Your task to perform on an android device: What's the weather going to be this weekend? Image 0: 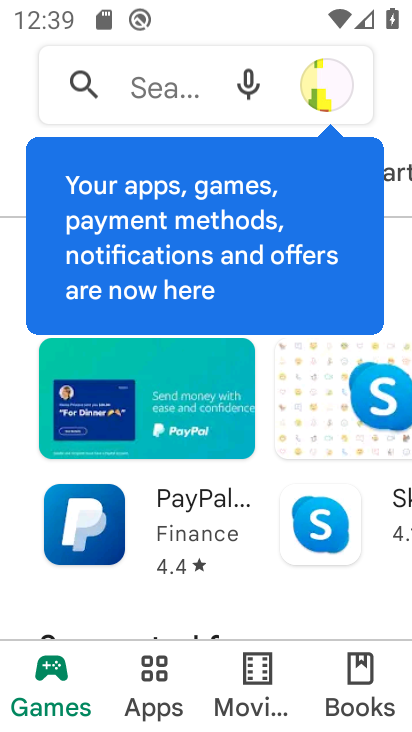
Step 0: press home button
Your task to perform on an android device: What's the weather going to be this weekend? Image 1: 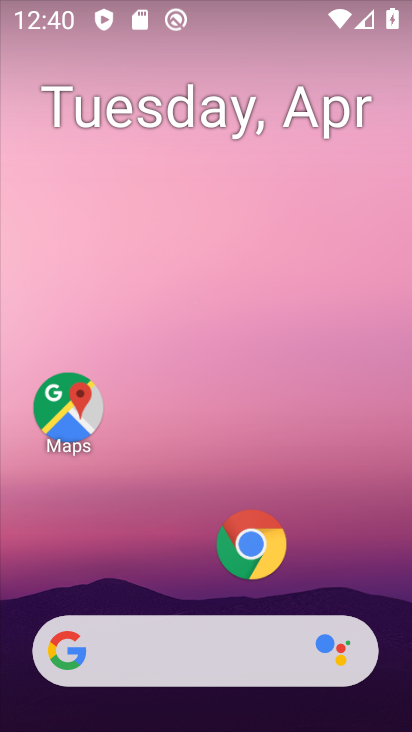
Step 1: drag from (341, 537) to (292, 99)
Your task to perform on an android device: What's the weather going to be this weekend? Image 2: 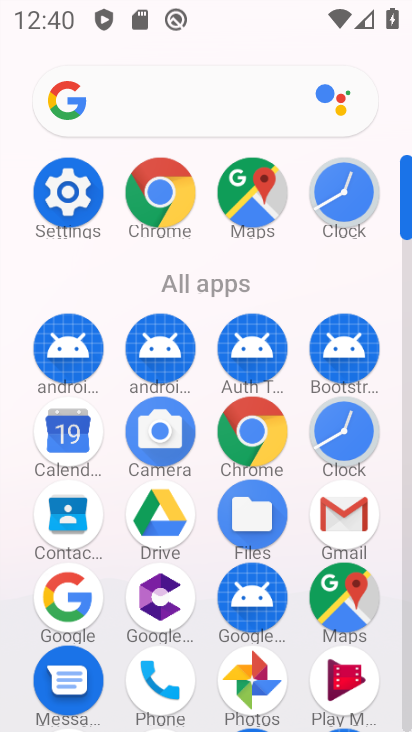
Step 2: click (260, 434)
Your task to perform on an android device: What's the weather going to be this weekend? Image 3: 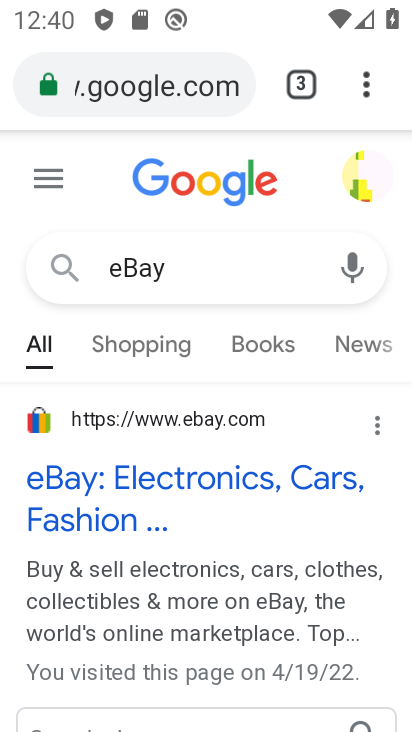
Step 3: click (367, 81)
Your task to perform on an android device: What's the weather going to be this weekend? Image 4: 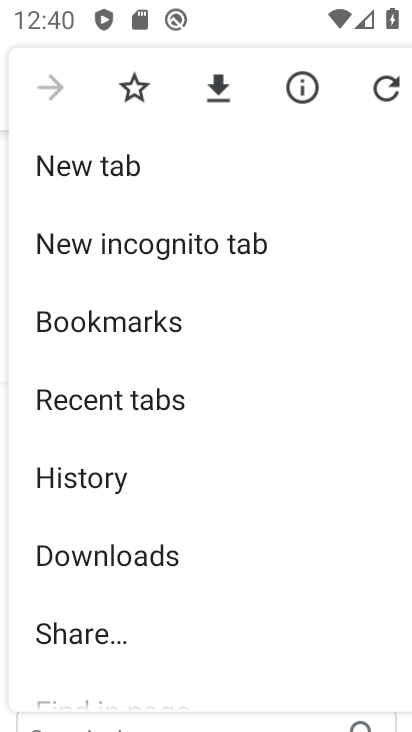
Step 4: click (220, 169)
Your task to perform on an android device: What's the weather going to be this weekend? Image 5: 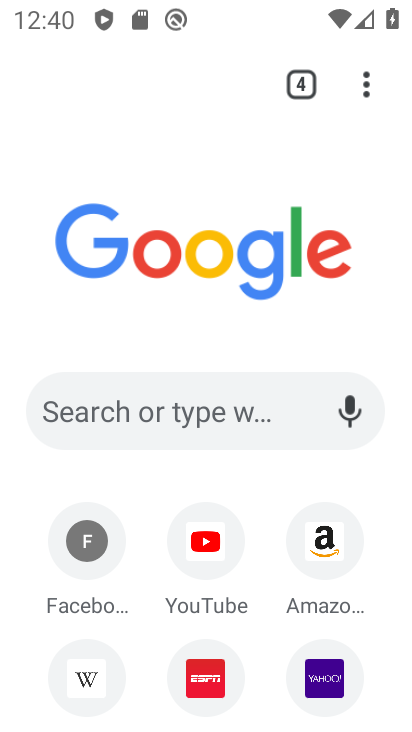
Step 5: click (247, 404)
Your task to perform on an android device: What's the weather going to be this weekend? Image 6: 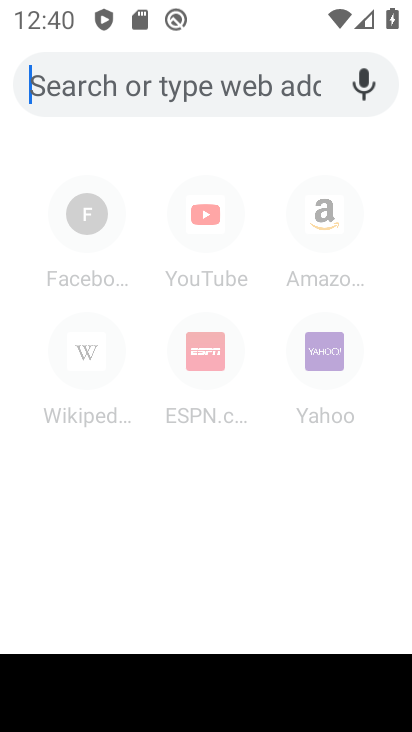
Step 6: type "What's the weather going to be this weekend?"
Your task to perform on an android device: What's the weather going to be this weekend? Image 7: 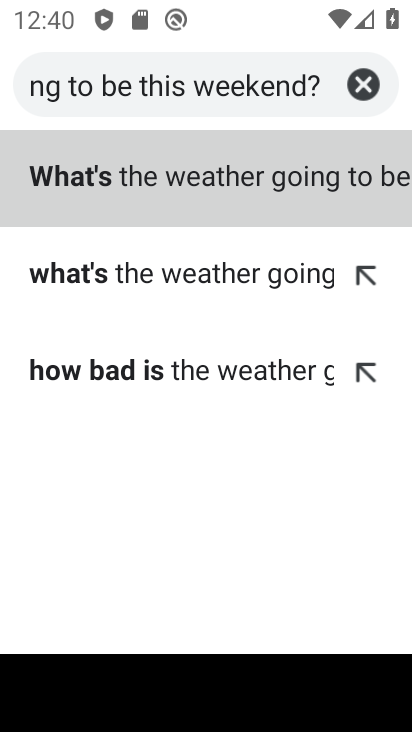
Step 7: click (306, 189)
Your task to perform on an android device: What's the weather going to be this weekend? Image 8: 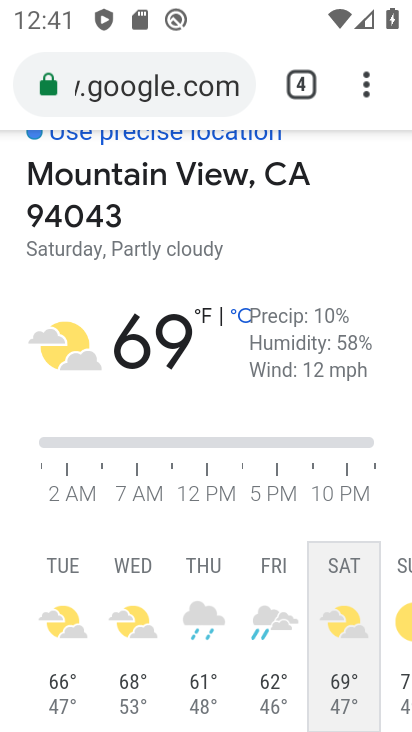
Step 8: task complete